Your task to perform on an android device: Open the calendar and show me this week's events Image 0: 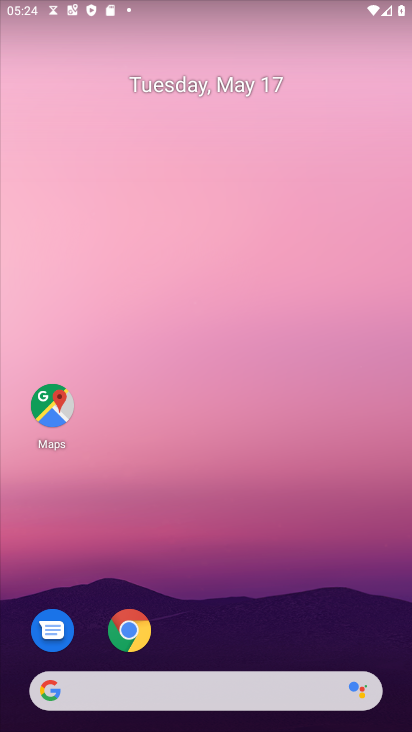
Step 0: drag from (290, 628) to (232, 141)
Your task to perform on an android device: Open the calendar and show me this week's events Image 1: 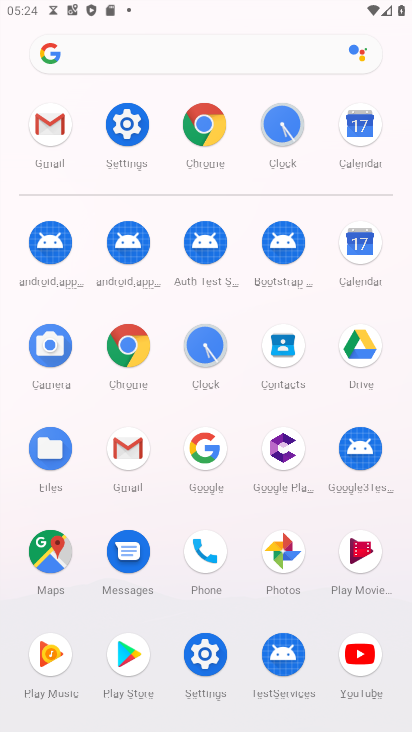
Step 1: click (363, 131)
Your task to perform on an android device: Open the calendar and show me this week's events Image 2: 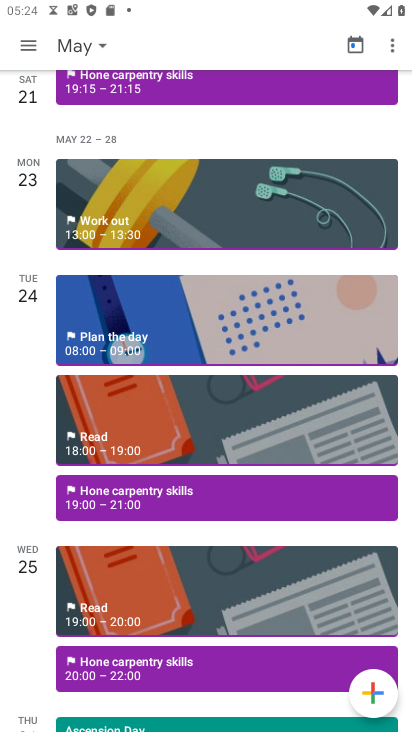
Step 2: task complete